Your task to perform on an android device: Show me productivity apps on the Play Store Image 0: 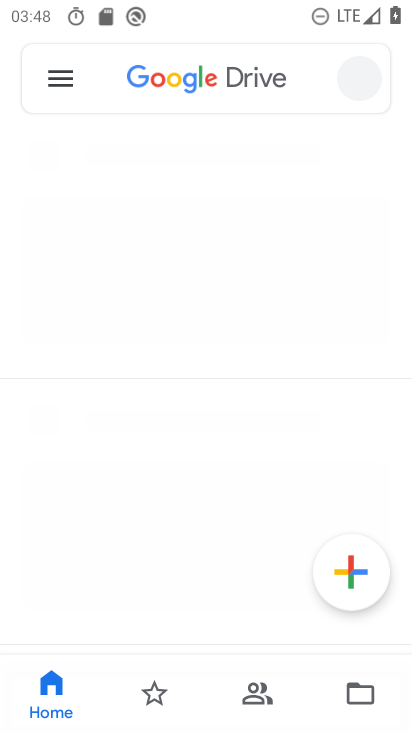
Step 0: drag from (327, 578) to (305, 68)
Your task to perform on an android device: Show me productivity apps on the Play Store Image 1: 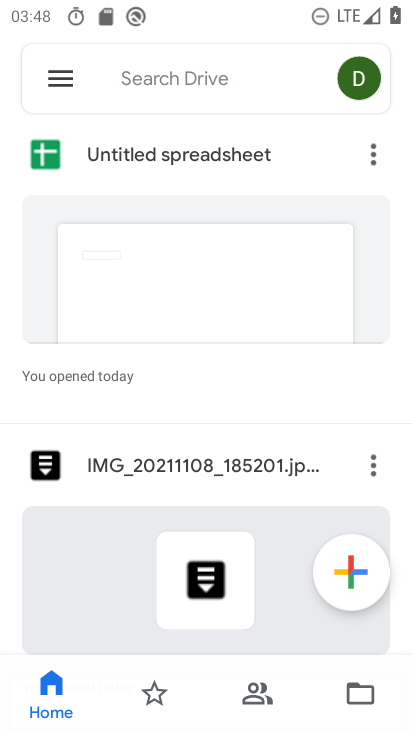
Step 1: press home button
Your task to perform on an android device: Show me productivity apps on the Play Store Image 2: 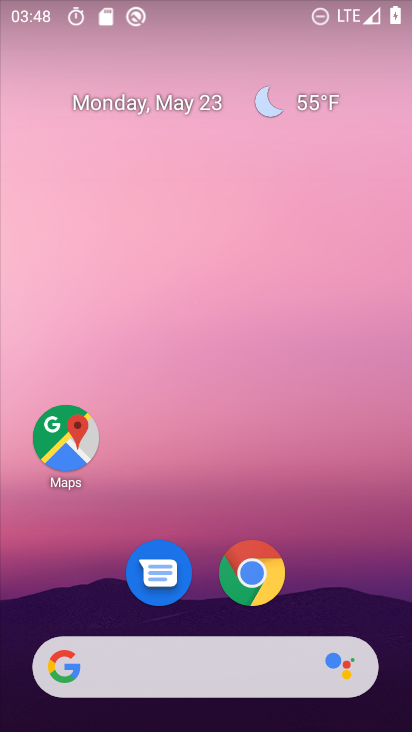
Step 2: drag from (328, 510) to (285, 77)
Your task to perform on an android device: Show me productivity apps on the Play Store Image 3: 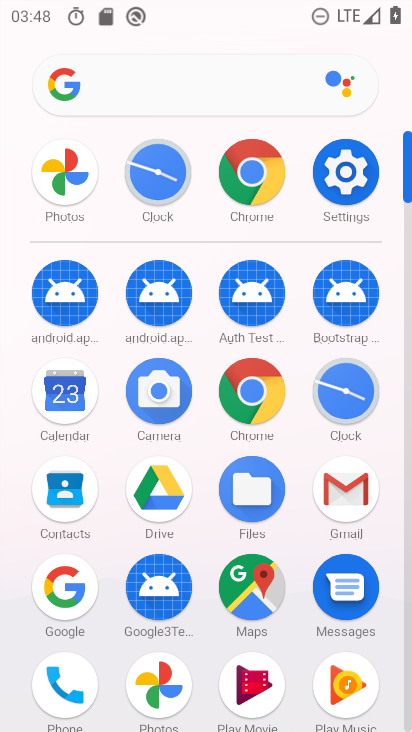
Step 3: drag from (210, 636) to (192, 277)
Your task to perform on an android device: Show me productivity apps on the Play Store Image 4: 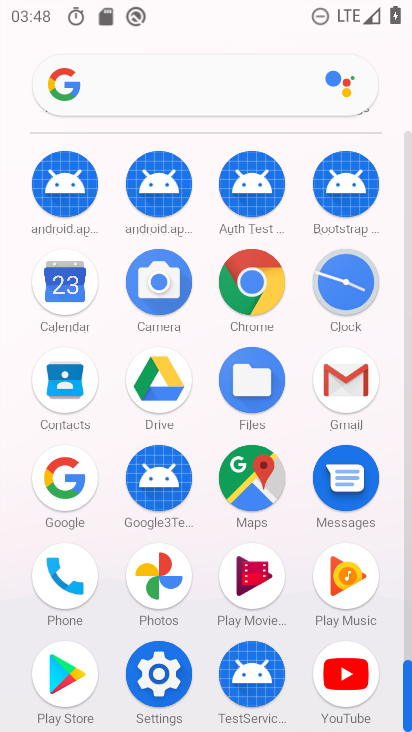
Step 4: click (68, 685)
Your task to perform on an android device: Show me productivity apps on the Play Store Image 5: 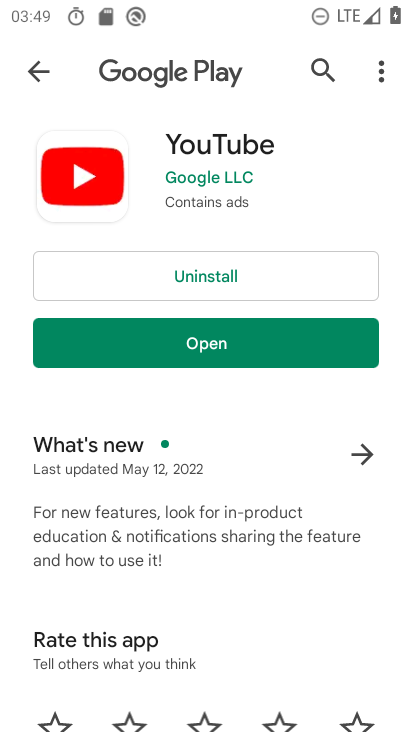
Step 5: click (324, 71)
Your task to perform on an android device: Show me productivity apps on the Play Store Image 6: 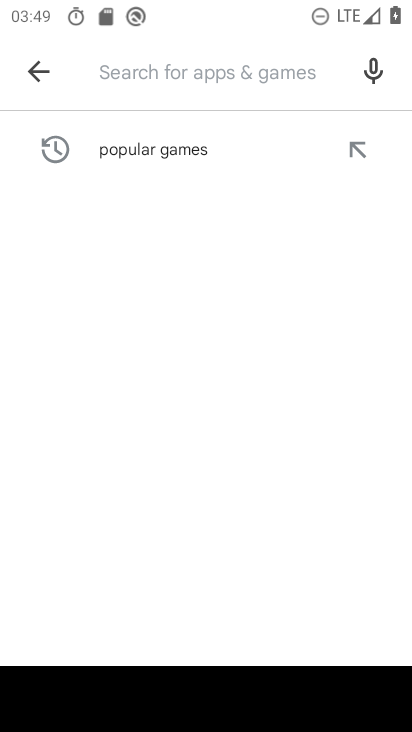
Step 6: type "productivity apps"
Your task to perform on an android device: Show me productivity apps on the Play Store Image 7: 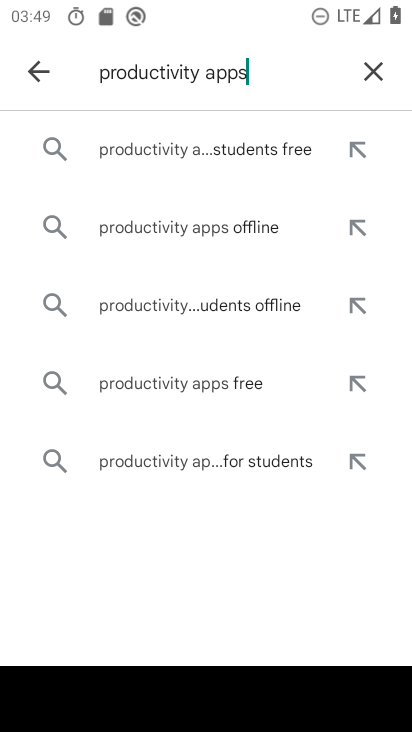
Step 7: click (276, 81)
Your task to perform on an android device: Show me productivity apps on the Play Store Image 8: 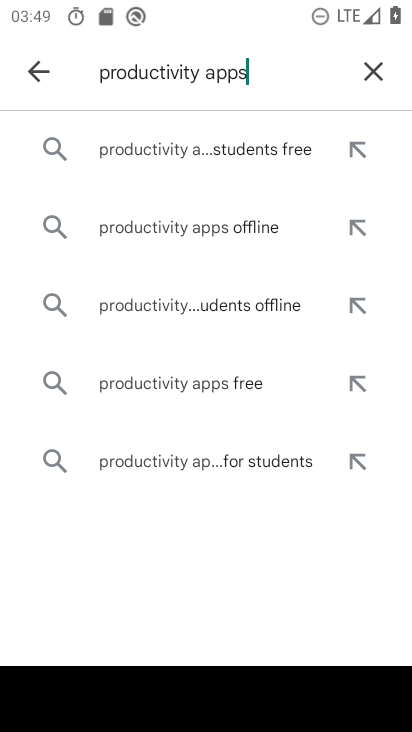
Step 8: click (221, 384)
Your task to perform on an android device: Show me productivity apps on the Play Store Image 9: 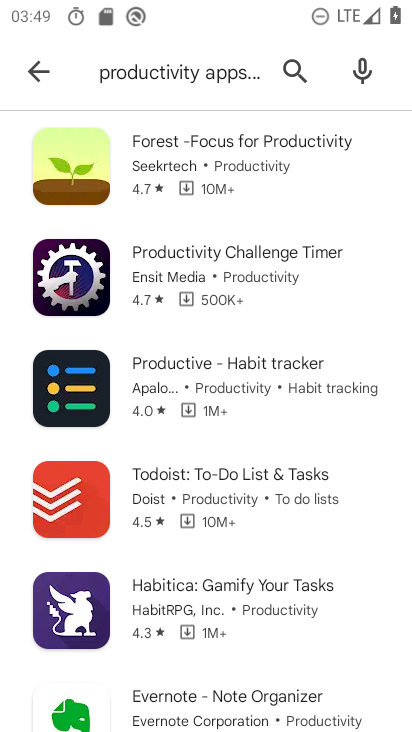
Step 9: task complete